Your task to perform on an android device: open app "Upside-Cash back on gas & food" Image 0: 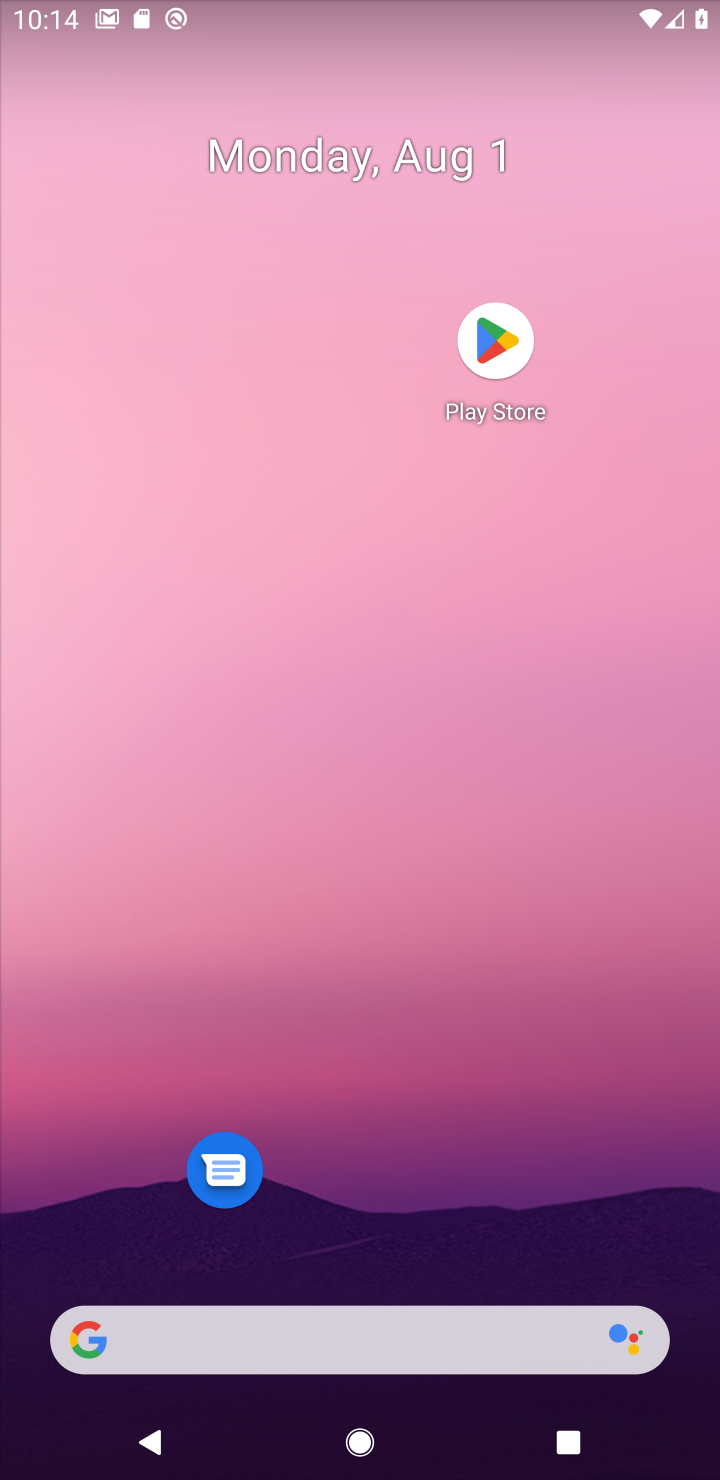
Step 0: drag from (421, 1031) to (414, 256)
Your task to perform on an android device: open app "Upside-Cash back on gas & food" Image 1: 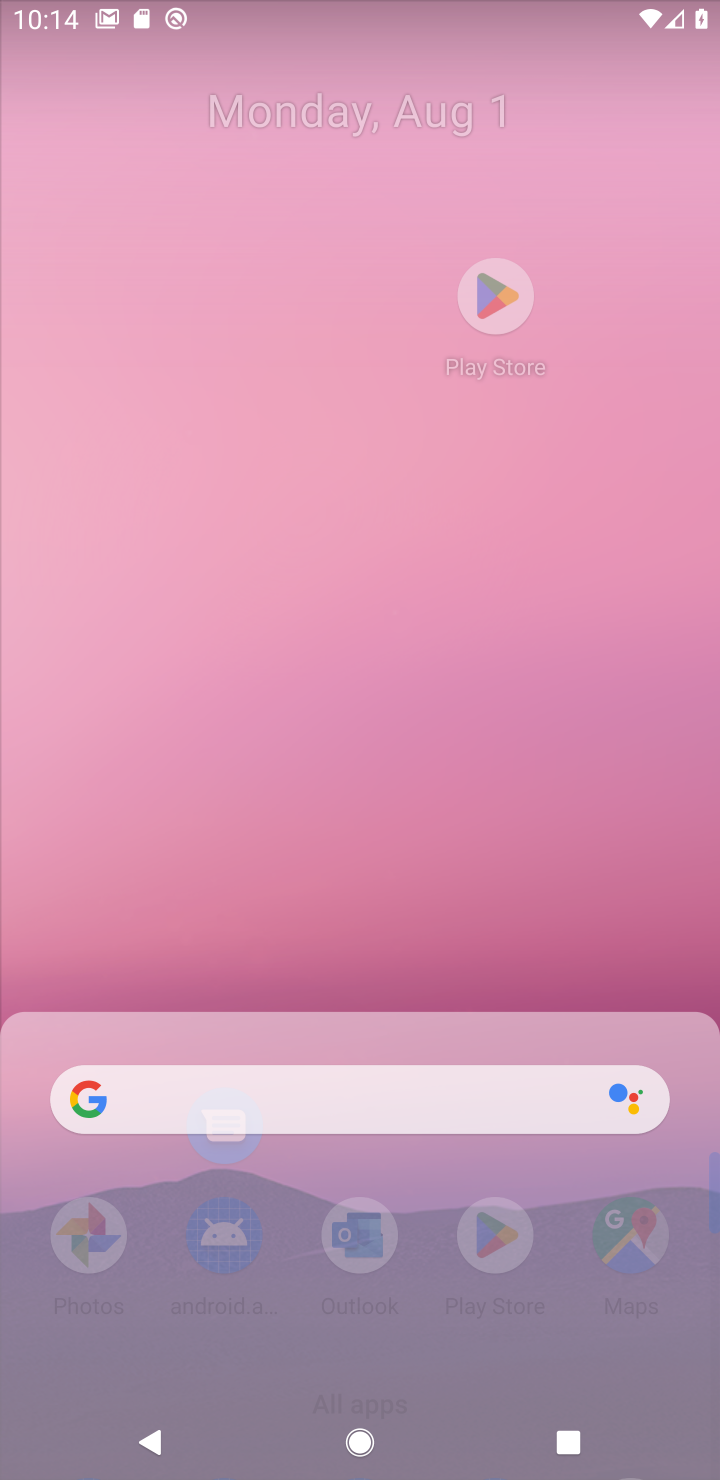
Step 1: click (354, 46)
Your task to perform on an android device: open app "Upside-Cash back on gas & food" Image 2: 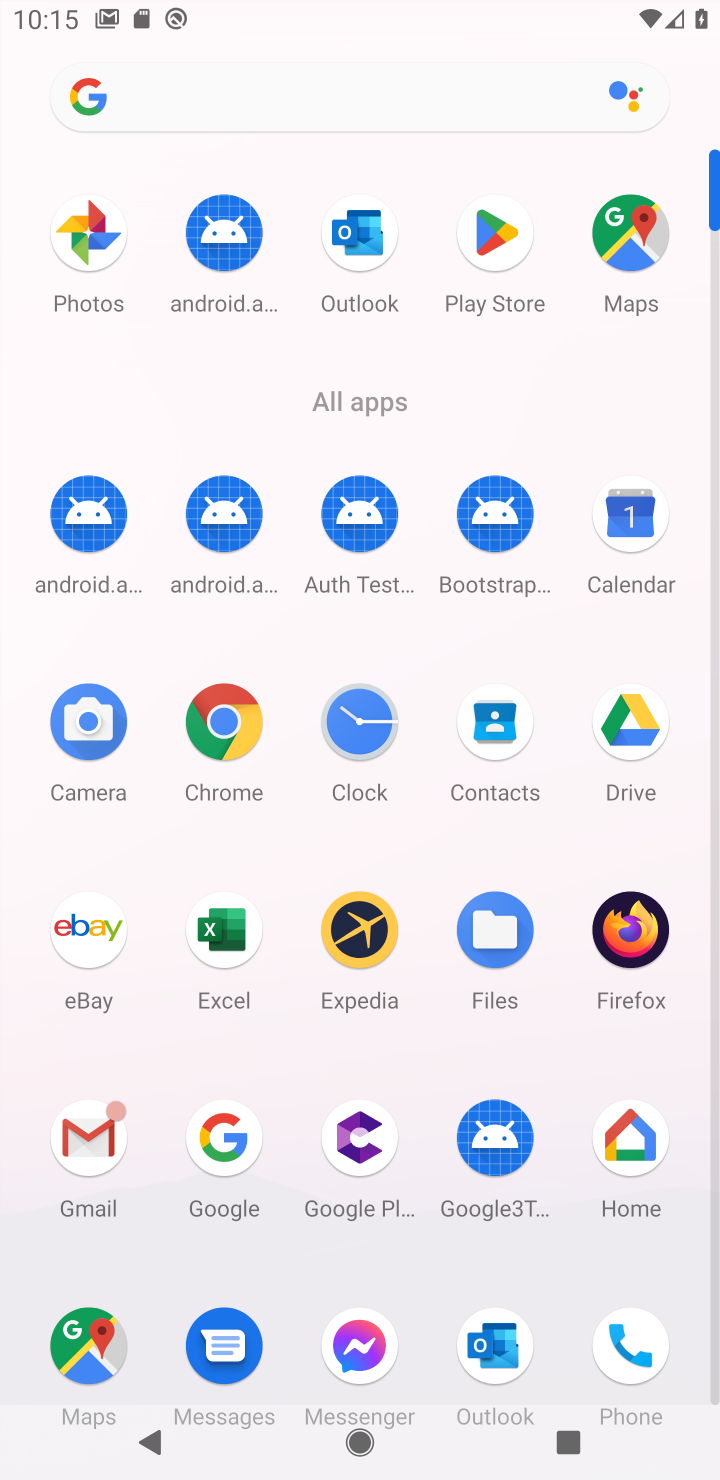
Step 2: click (477, 226)
Your task to perform on an android device: open app "Upside-Cash back on gas & food" Image 3: 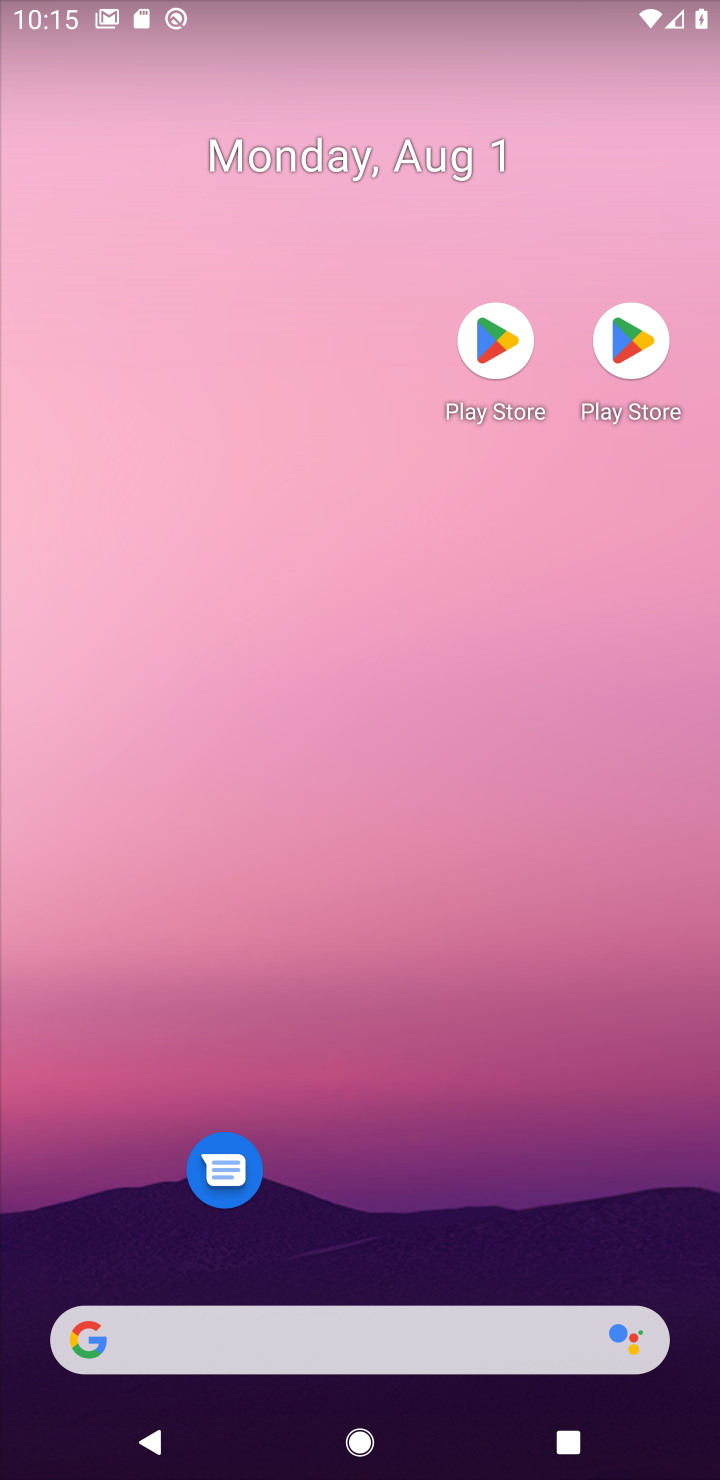
Step 3: drag from (317, 305) to (332, 18)
Your task to perform on an android device: open app "Upside-Cash back on gas & food" Image 4: 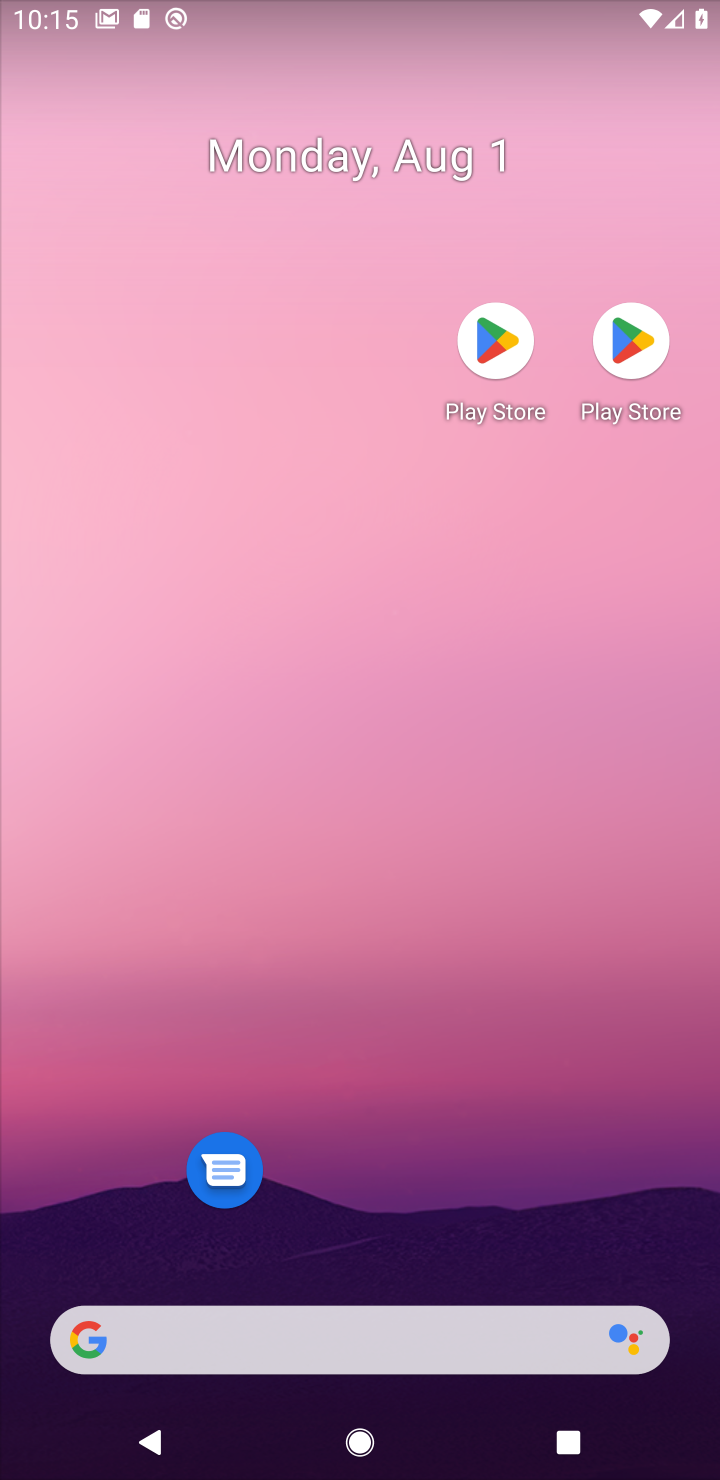
Step 4: click (494, 348)
Your task to perform on an android device: open app "Upside-Cash back on gas & food" Image 5: 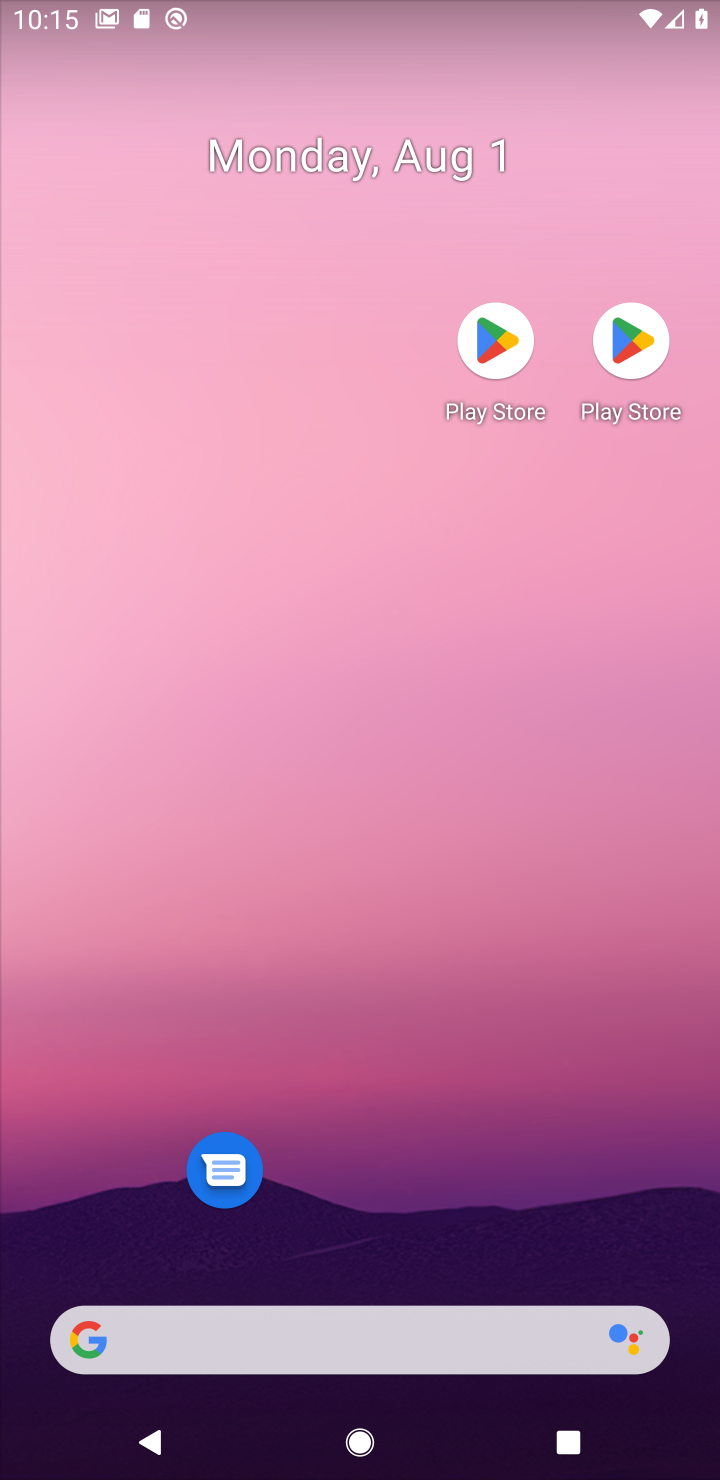
Step 5: click (499, 355)
Your task to perform on an android device: open app "Upside-Cash back on gas & food" Image 6: 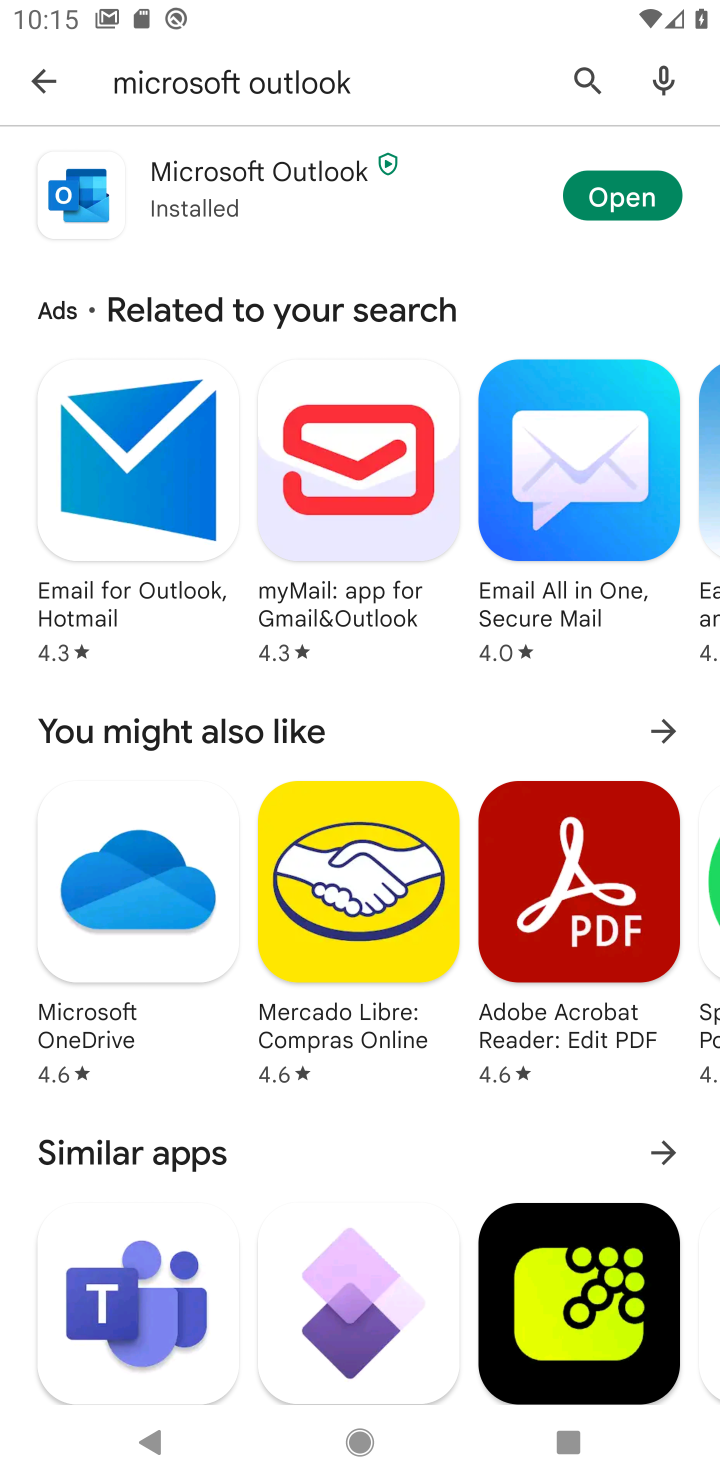
Step 6: click (55, 67)
Your task to perform on an android device: open app "Upside-Cash back on gas & food" Image 7: 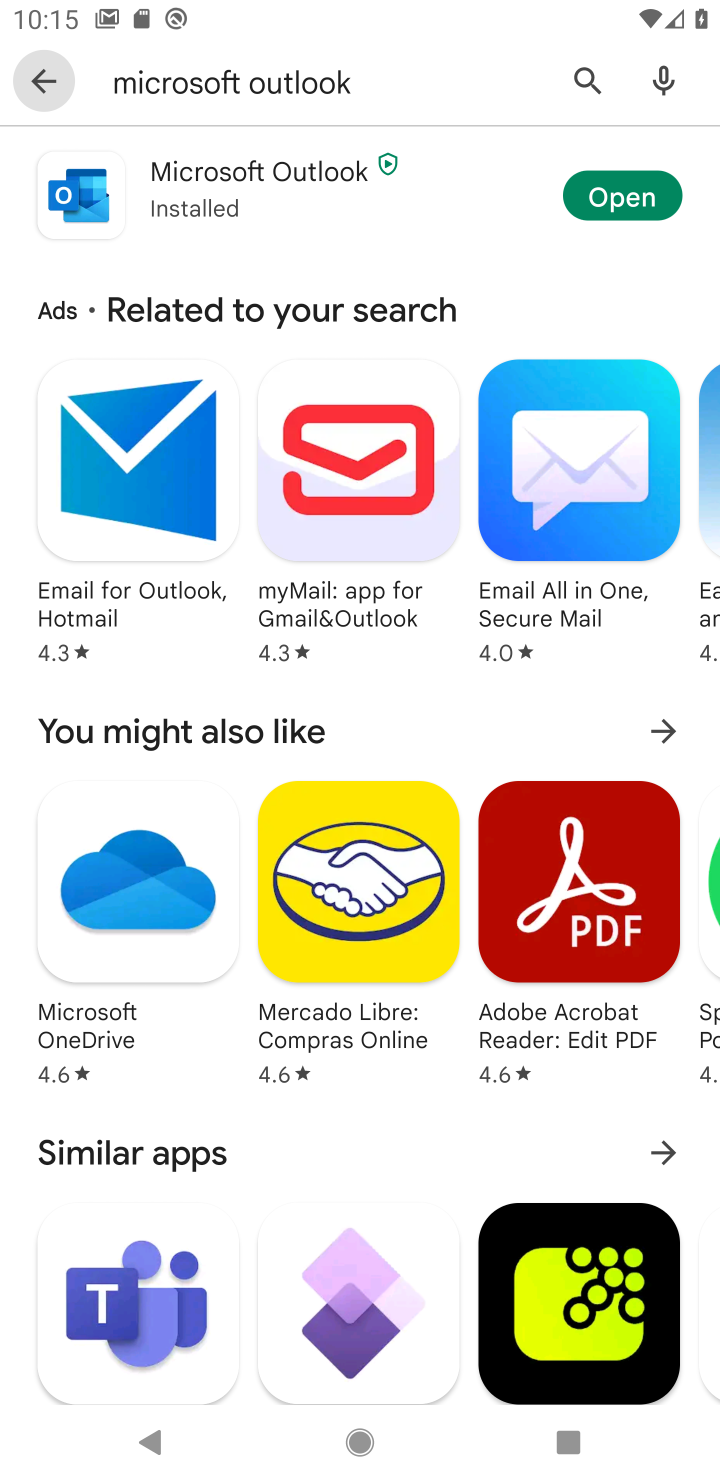
Step 7: click (55, 63)
Your task to perform on an android device: open app "Upside-Cash back on gas & food" Image 8: 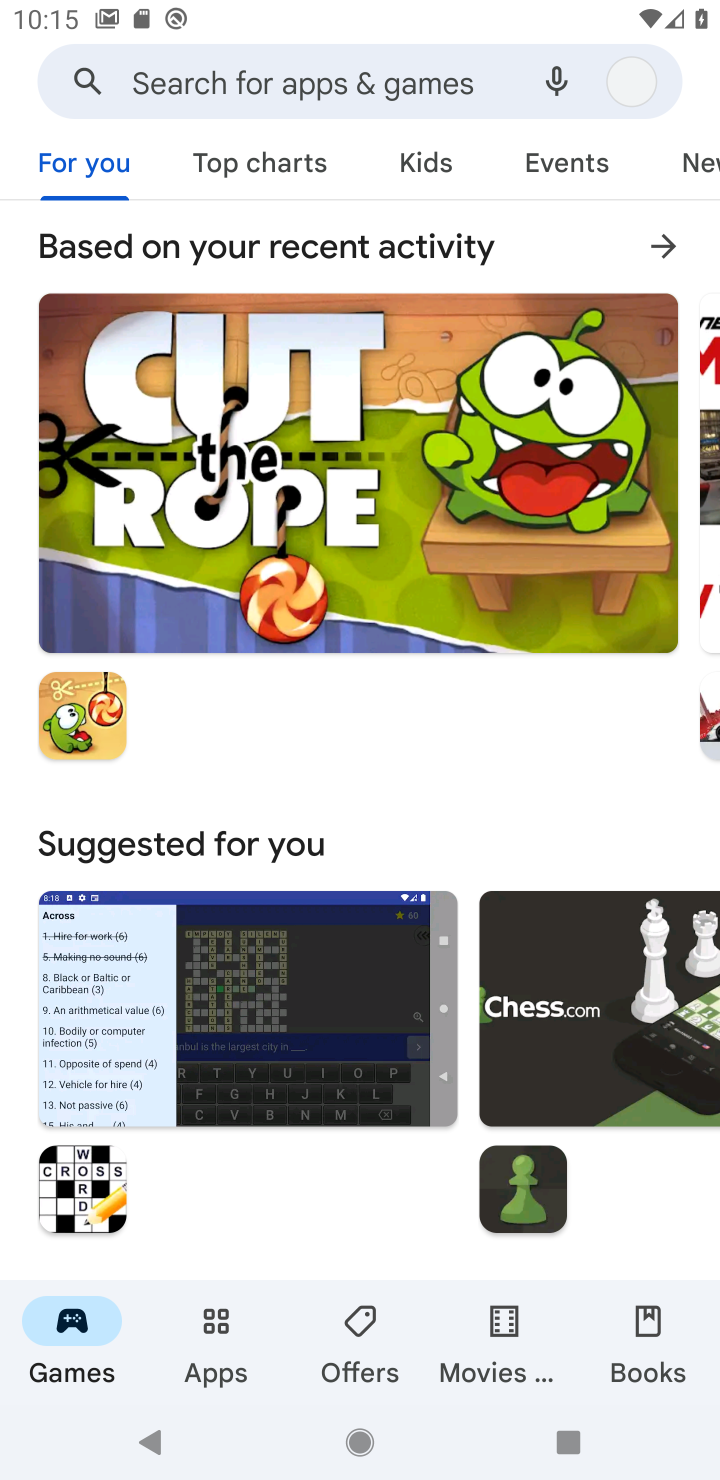
Step 8: drag from (57, 63) to (252, 74)
Your task to perform on an android device: open app "Upside-Cash back on gas & food" Image 9: 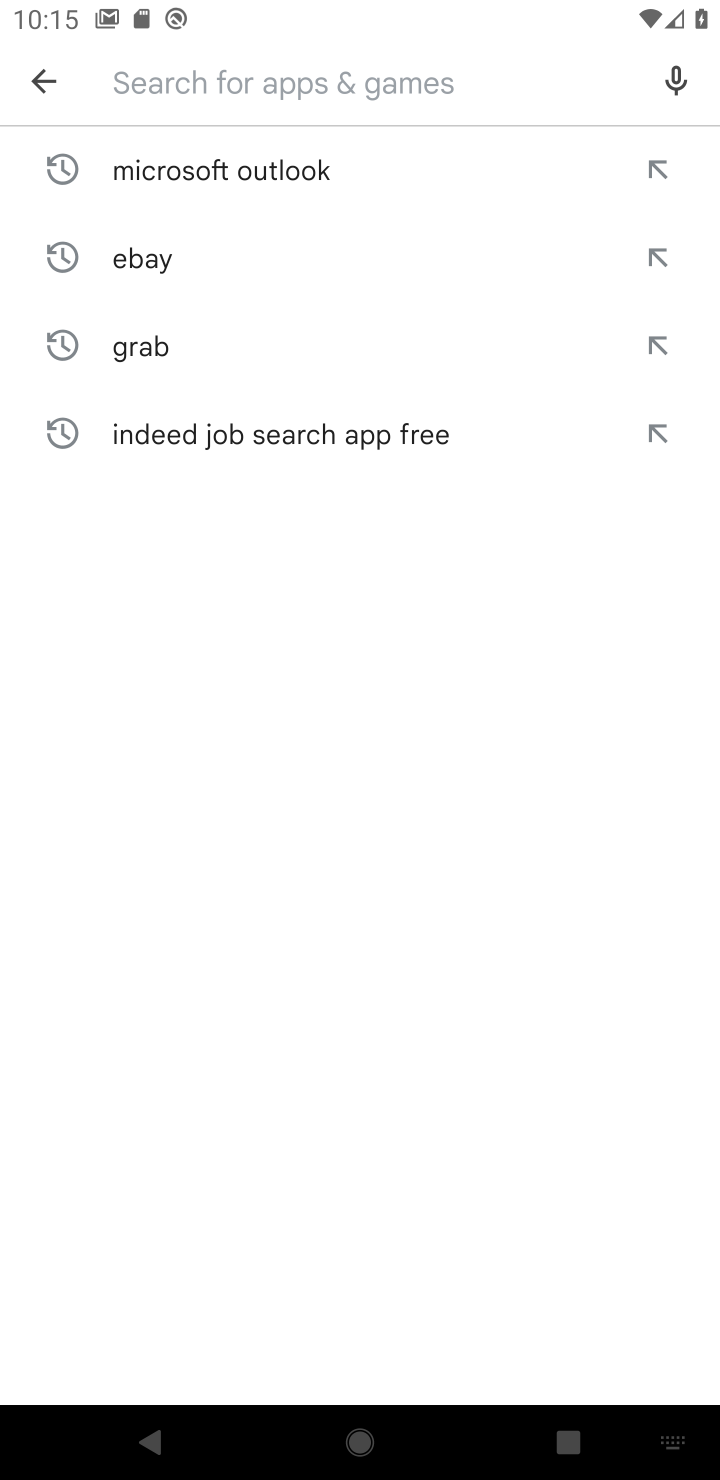
Step 9: type "upside"
Your task to perform on an android device: open app "Upside-Cash back on gas & food" Image 10: 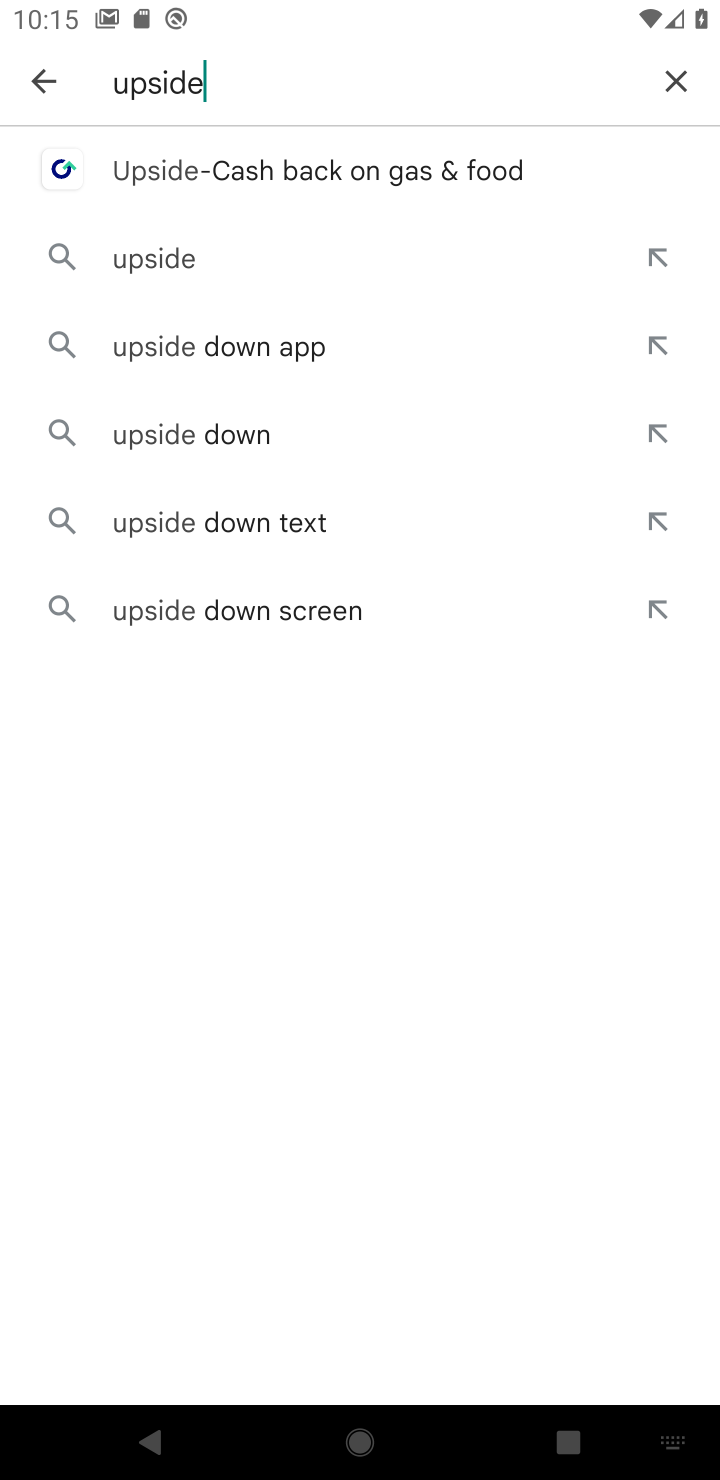
Step 10: click (319, 167)
Your task to perform on an android device: open app "Upside-Cash back on gas & food" Image 11: 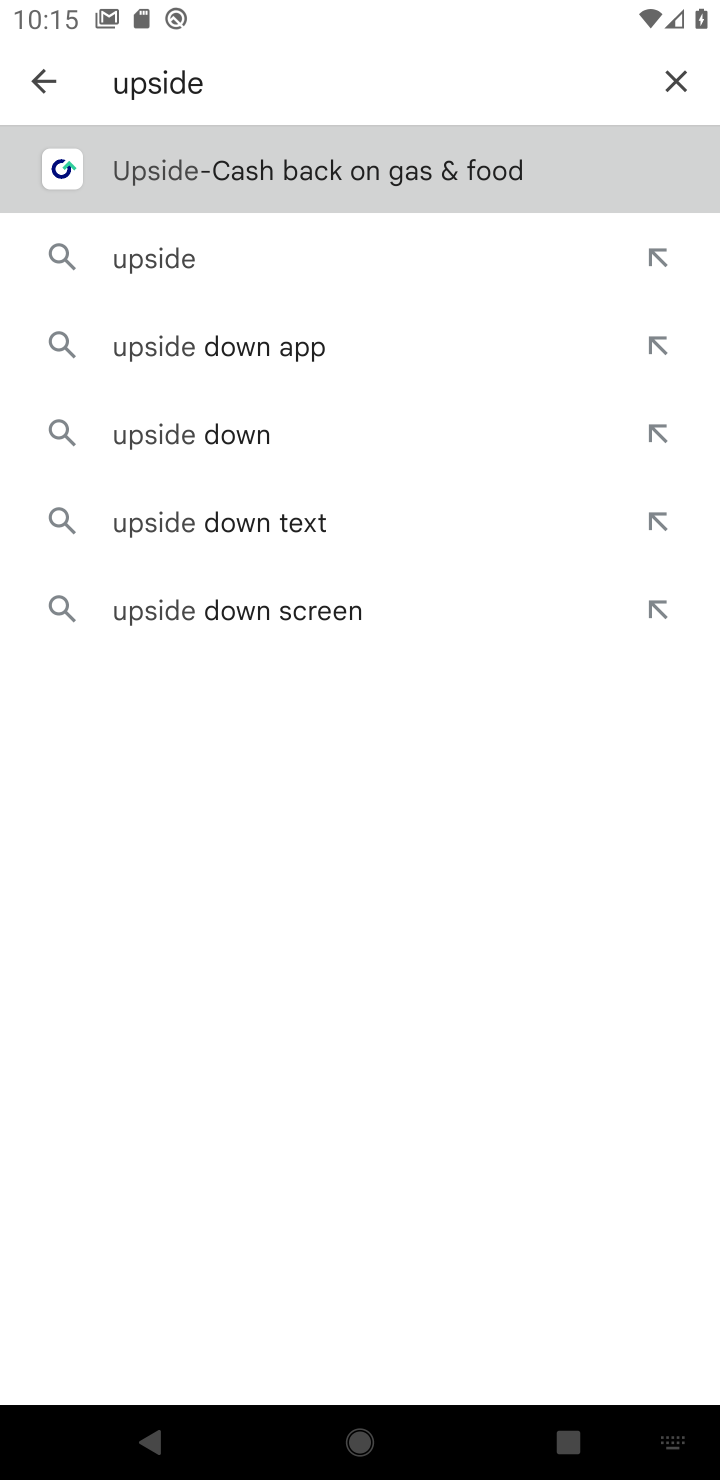
Step 11: click (338, 174)
Your task to perform on an android device: open app "Upside-Cash back on gas & food" Image 12: 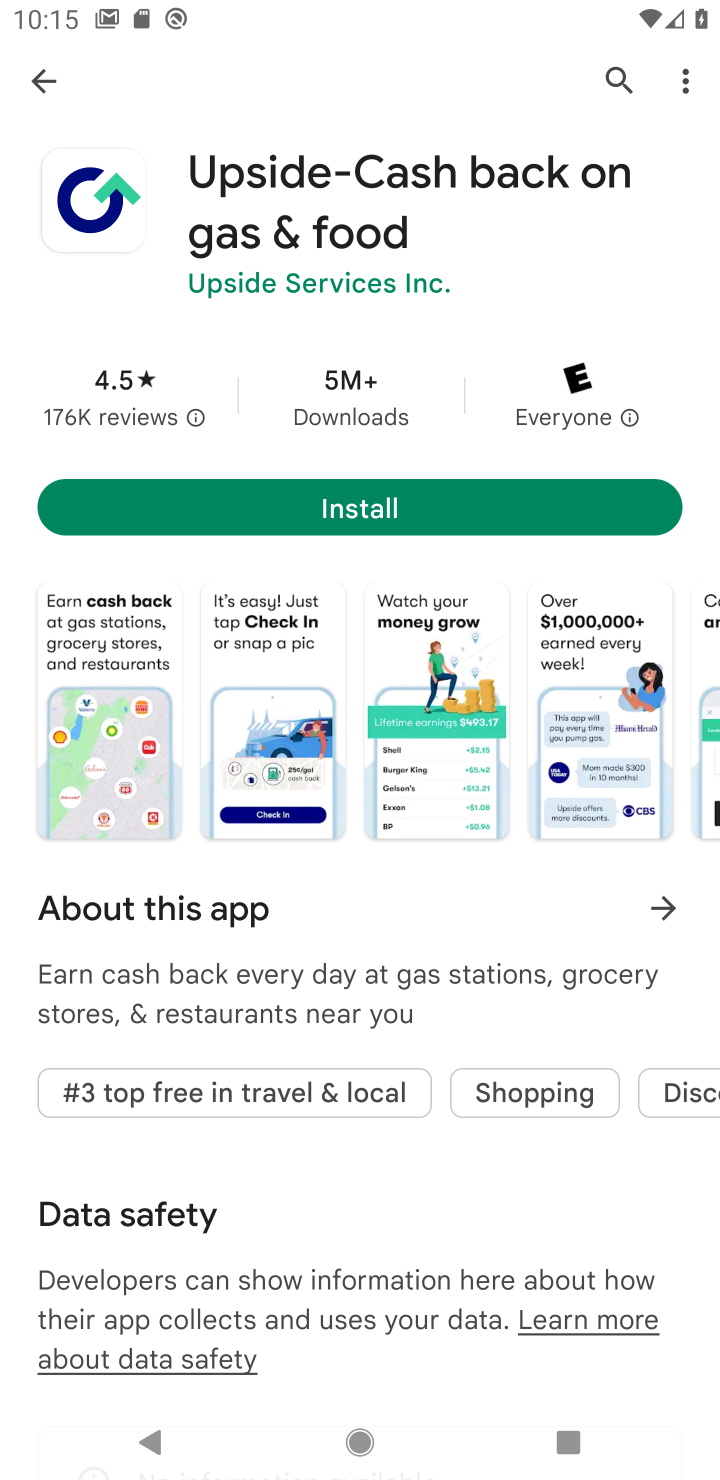
Step 12: click (351, 502)
Your task to perform on an android device: open app "Upside-Cash back on gas & food" Image 13: 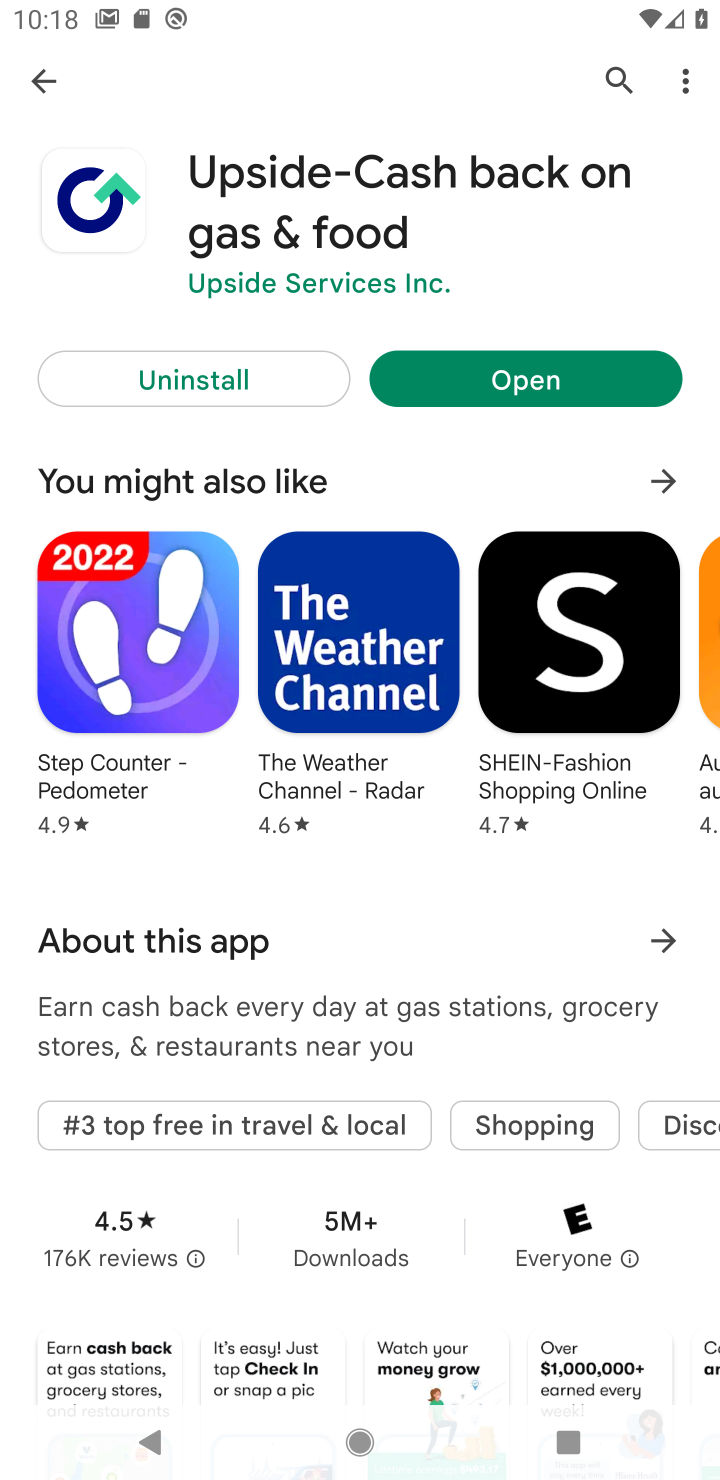
Step 13: click (578, 372)
Your task to perform on an android device: open app "Upside-Cash back on gas & food" Image 14: 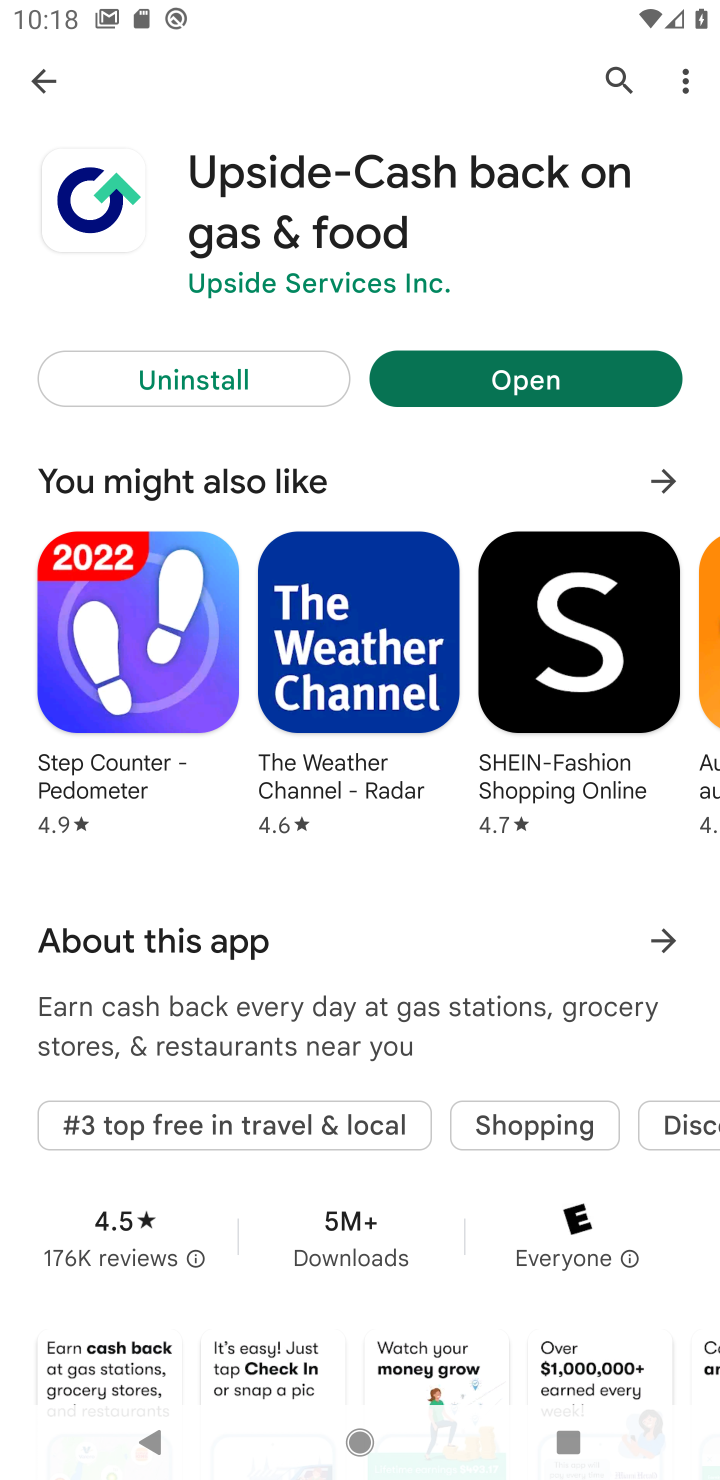
Step 14: click (549, 376)
Your task to perform on an android device: open app "Upside-Cash back on gas & food" Image 15: 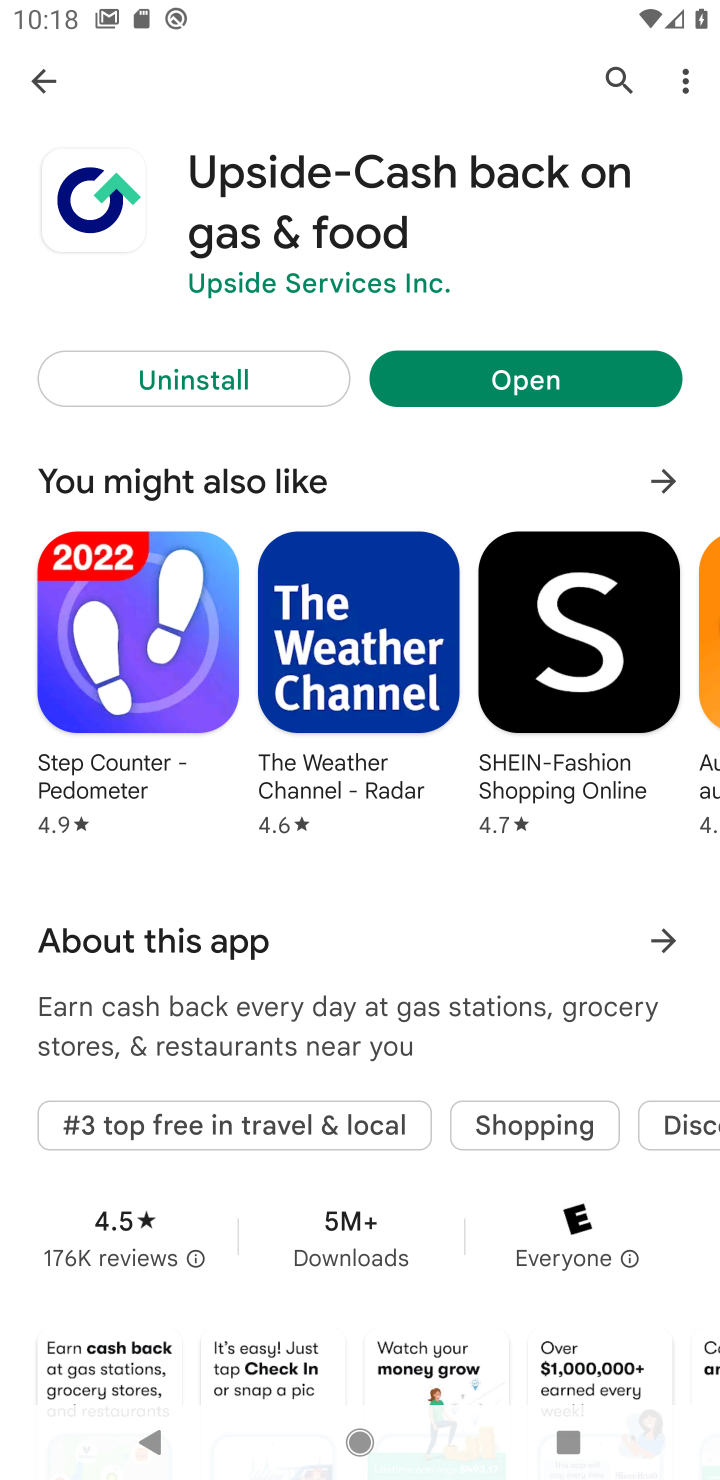
Step 15: click (557, 391)
Your task to perform on an android device: open app "Upside-Cash back on gas & food" Image 16: 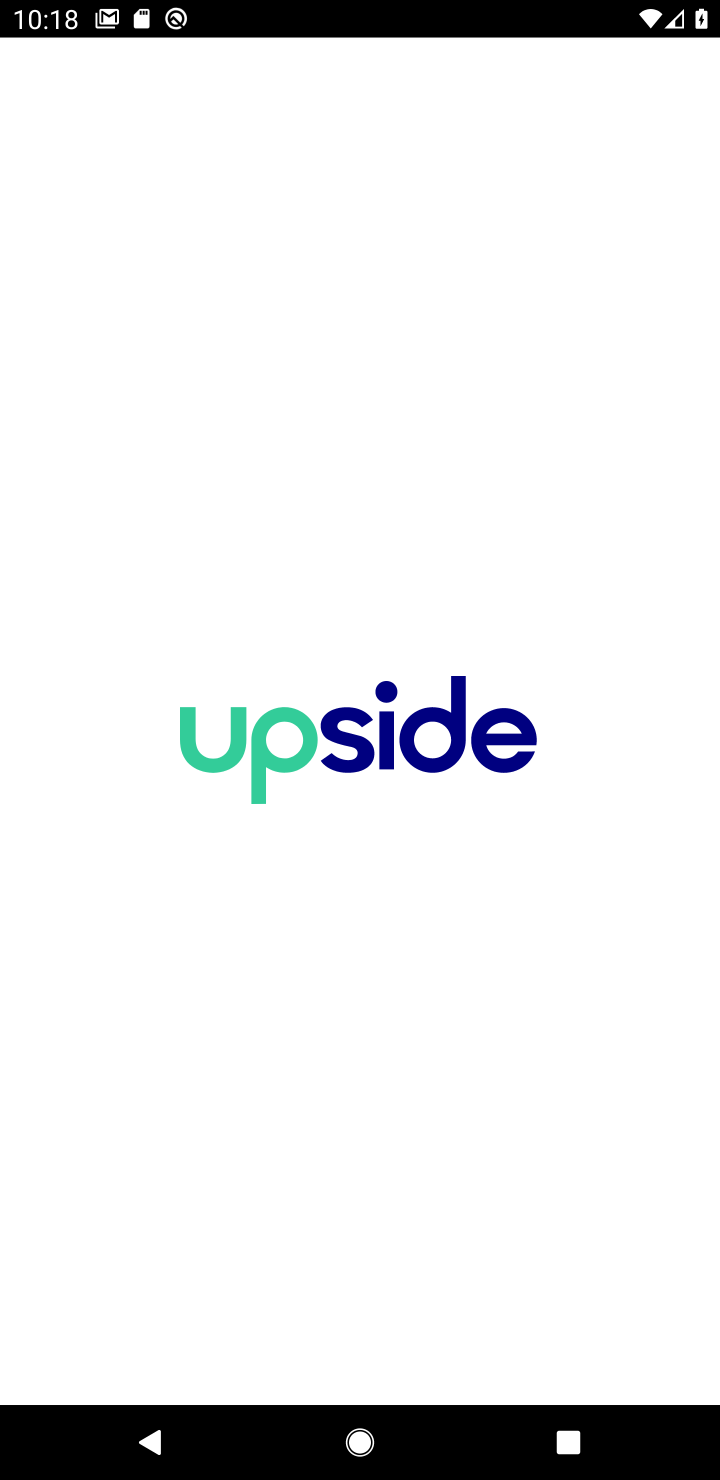
Step 16: task complete